Your task to perform on an android device: Toggle the flashlight Image 0: 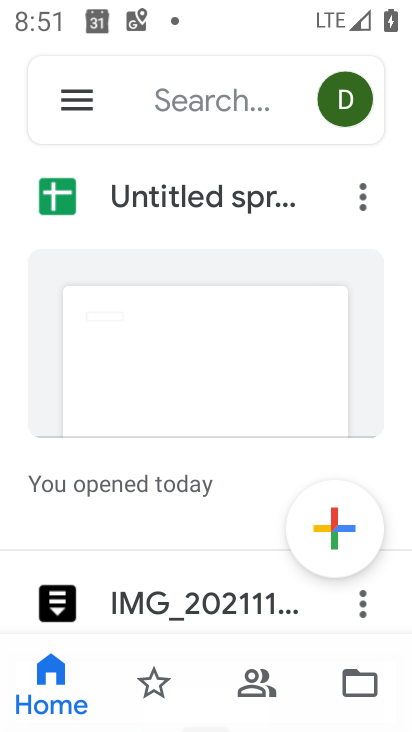
Step 0: press home button
Your task to perform on an android device: Toggle the flashlight Image 1: 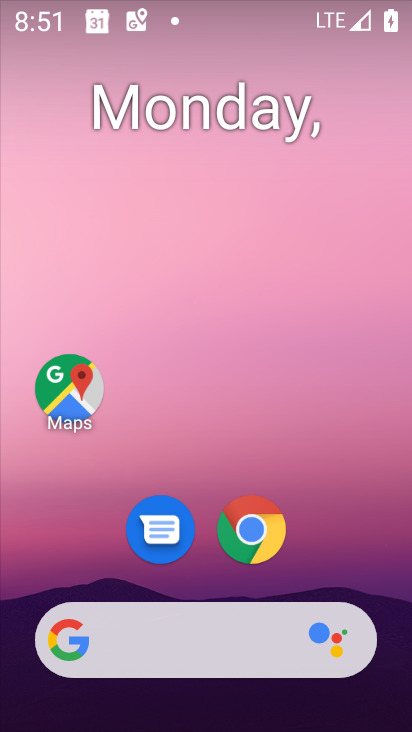
Step 1: drag from (22, 672) to (206, 184)
Your task to perform on an android device: Toggle the flashlight Image 2: 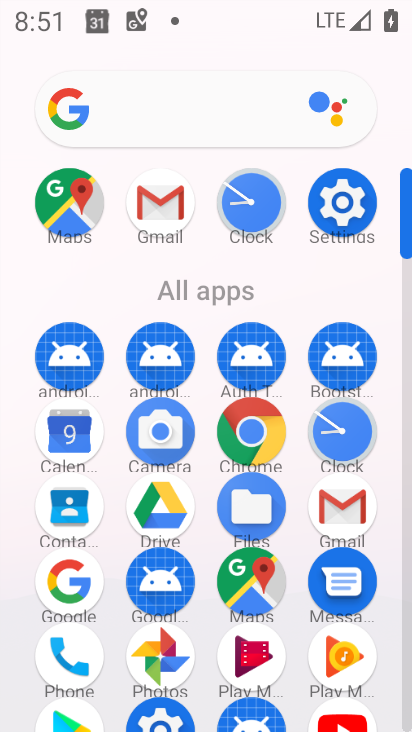
Step 2: click (328, 221)
Your task to perform on an android device: Toggle the flashlight Image 3: 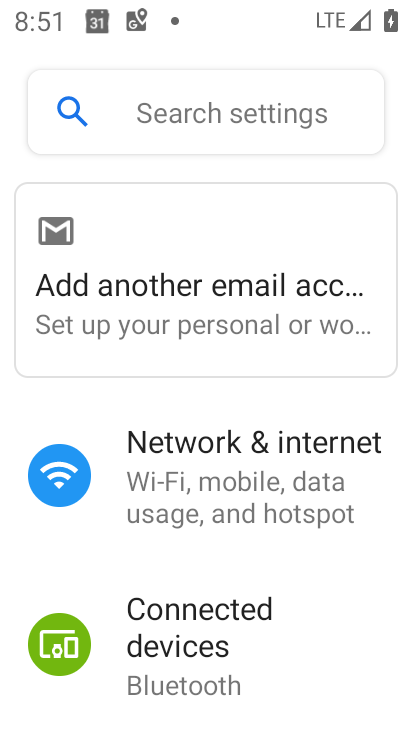
Step 3: task complete